Your task to perform on an android device: Open Amazon Image 0: 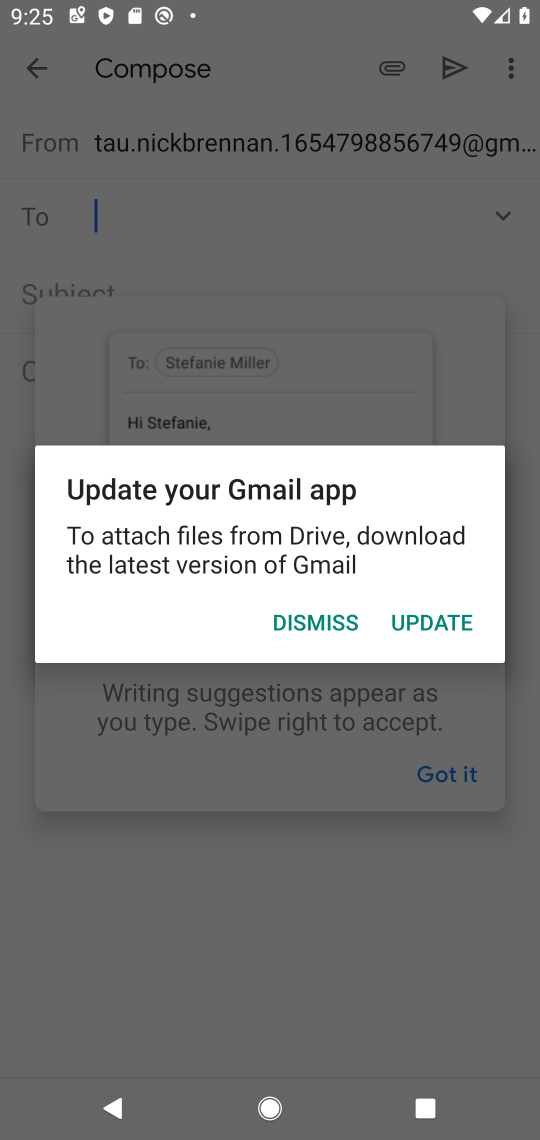
Step 0: press home button
Your task to perform on an android device: Open Amazon Image 1: 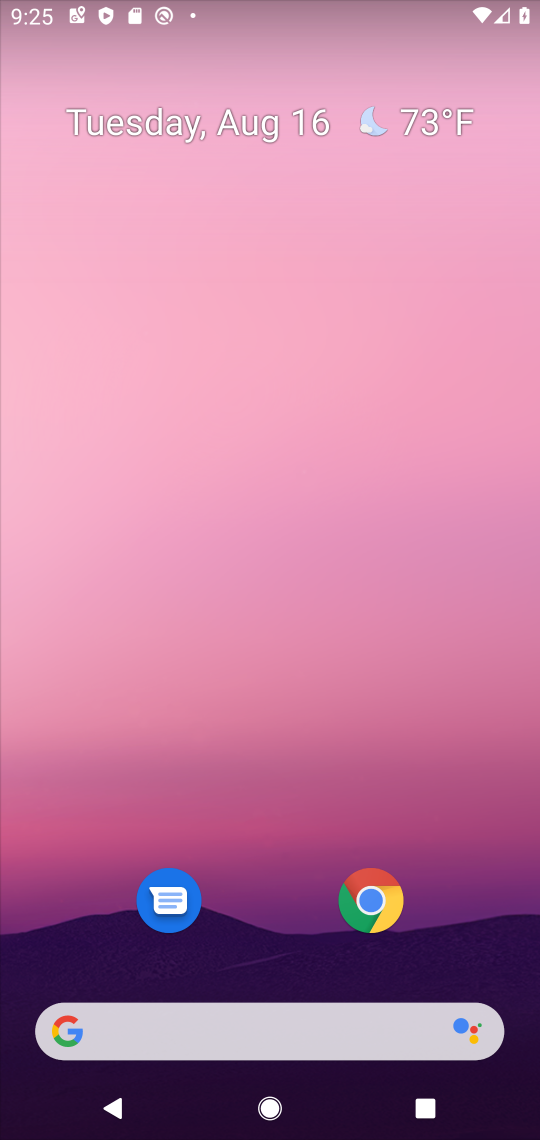
Step 1: drag from (365, 783) to (487, 36)
Your task to perform on an android device: Open Amazon Image 2: 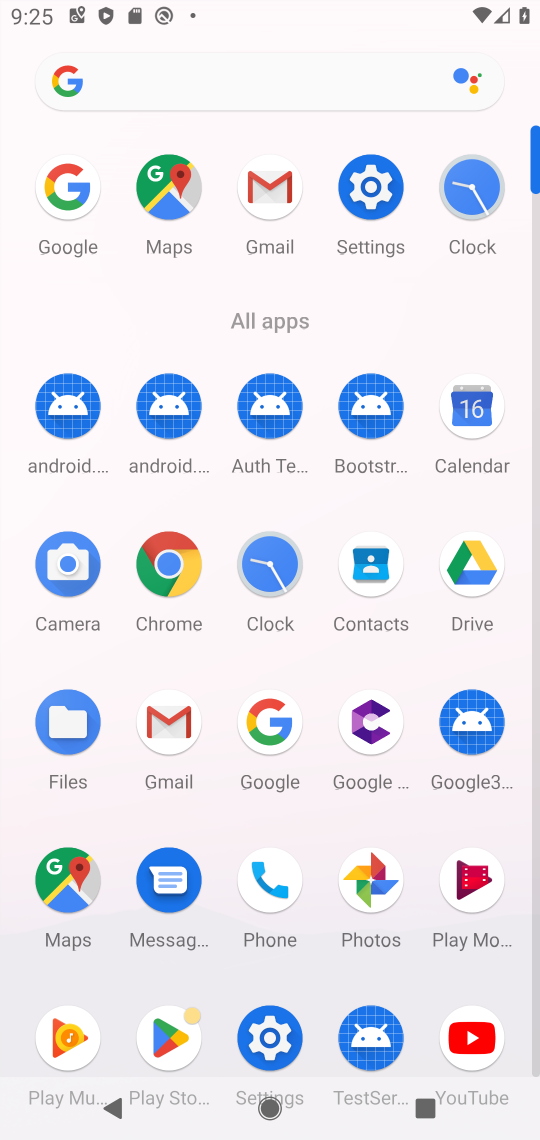
Step 2: click (276, 726)
Your task to perform on an android device: Open Amazon Image 3: 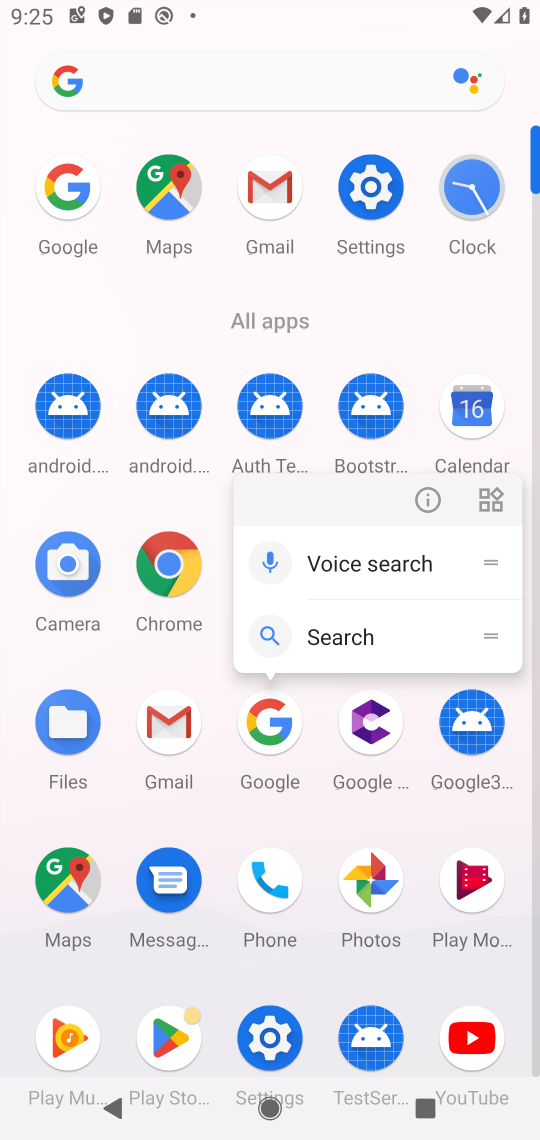
Step 3: click (276, 726)
Your task to perform on an android device: Open Amazon Image 4: 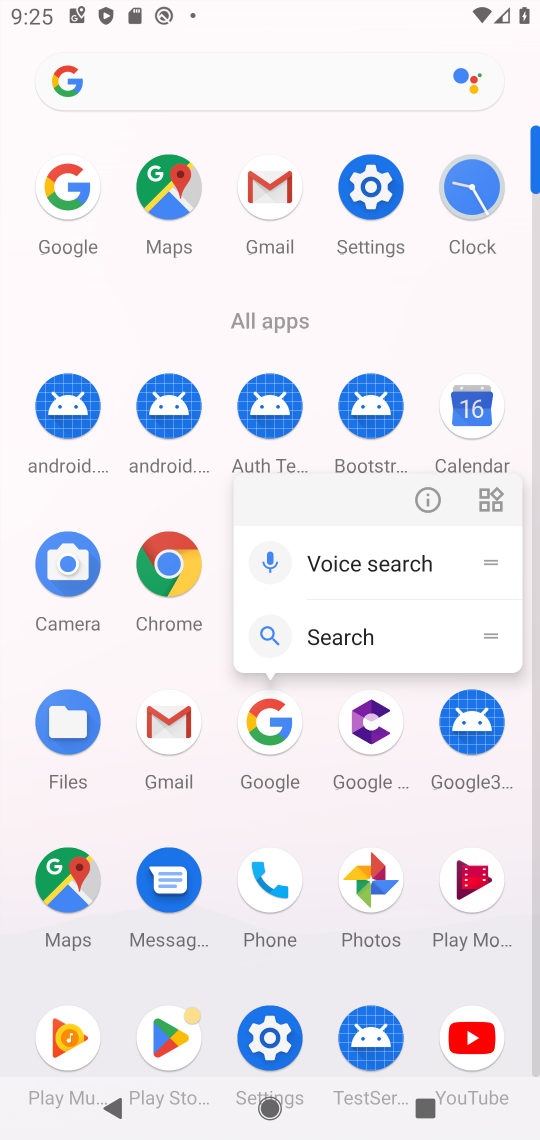
Step 4: click (276, 726)
Your task to perform on an android device: Open Amazon Image 5: 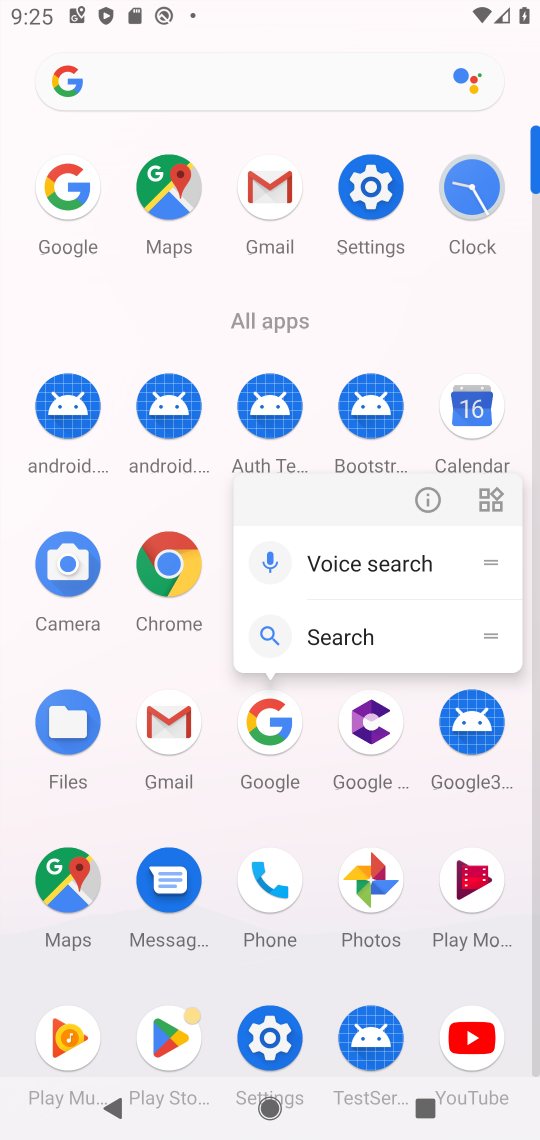
Step 5: click (258, 722)
Your task to perform on an android device: Open Amazon Image 6: 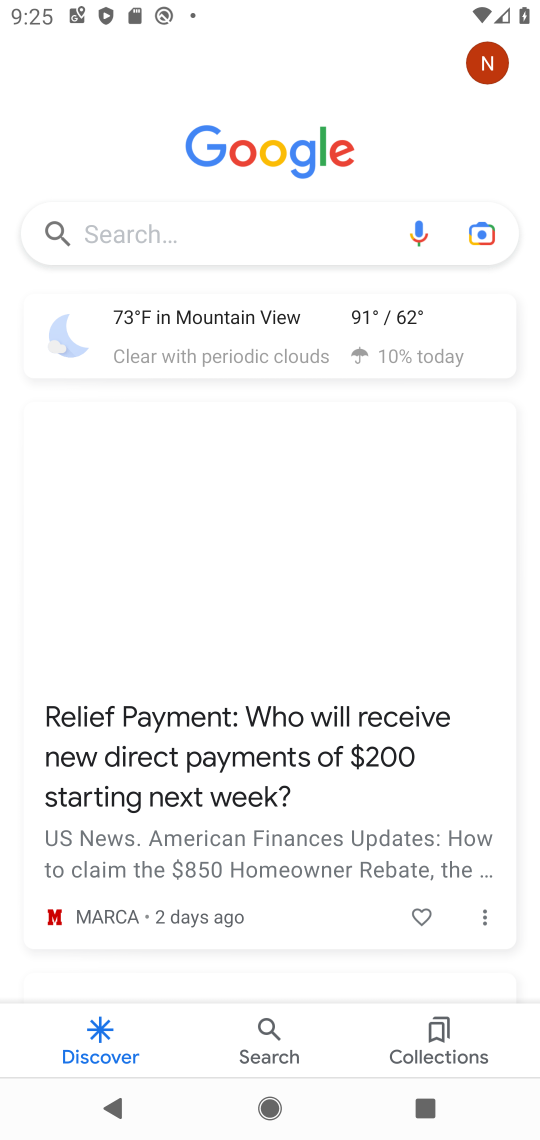
Step 6: click (283, 248)
Your task to perform on an android device: Open Amazon Image 7: 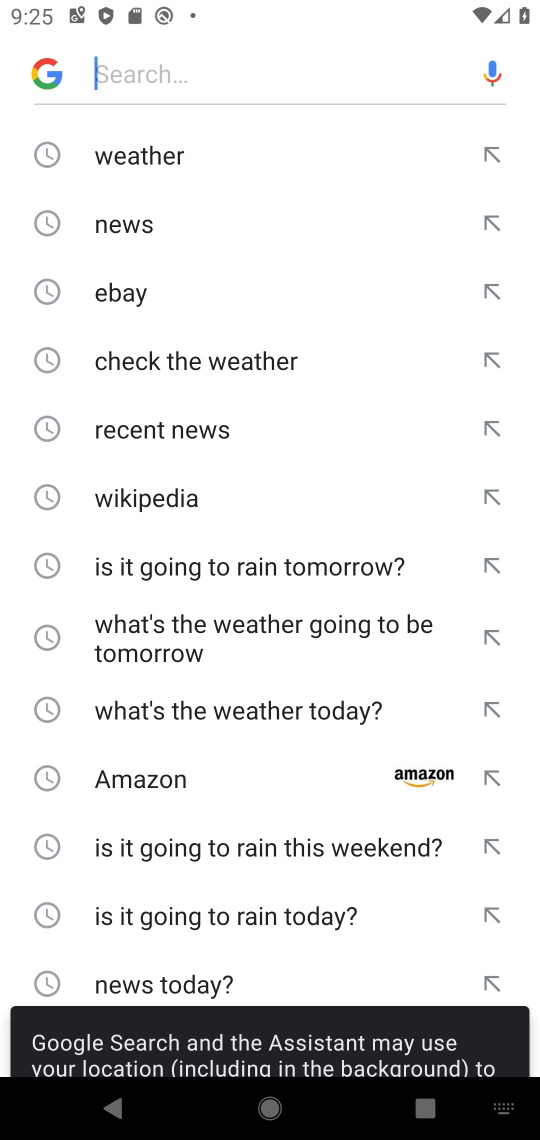
Step 7: click (168, 784)
Your task to perform on an android device: Open Amazon Image 8: 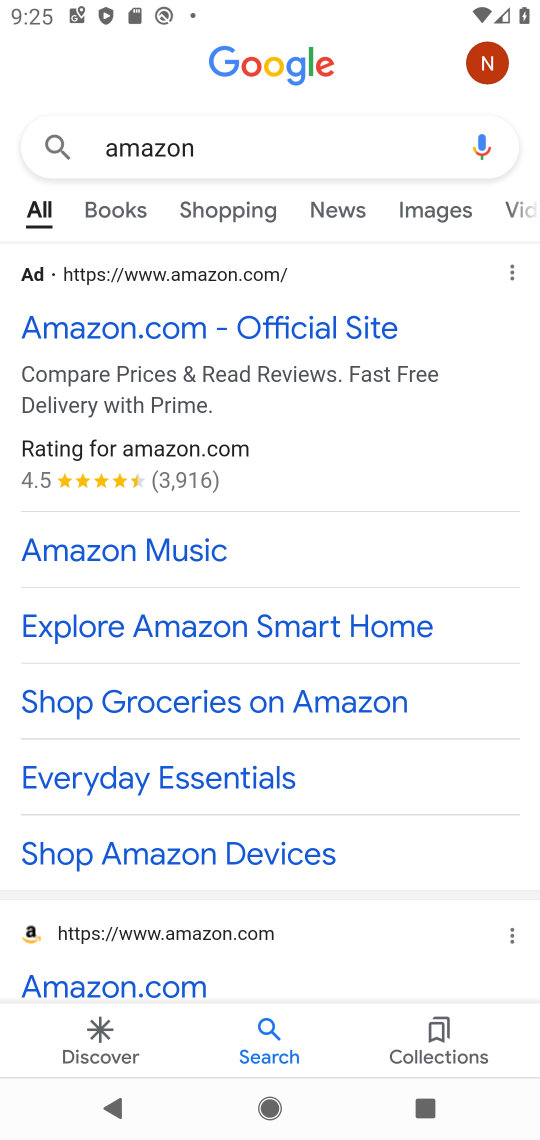
Step 8: click (204, 323)
Your task to perform on an android device: Open Amazon Image 9: 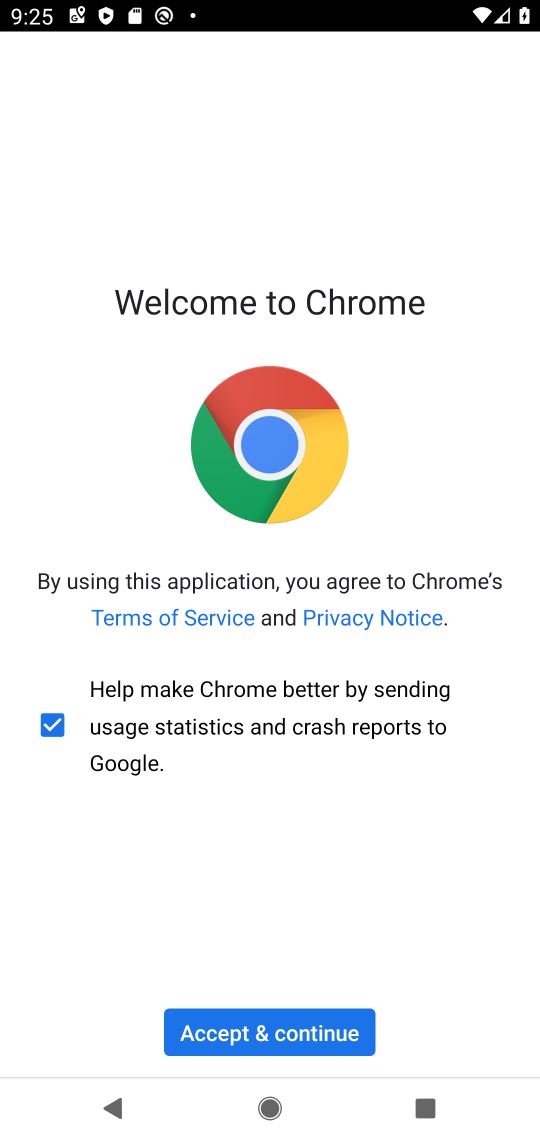
Step 9: click (226, 1010)
Your task to perform on an android device: Open Amazon Image 10: 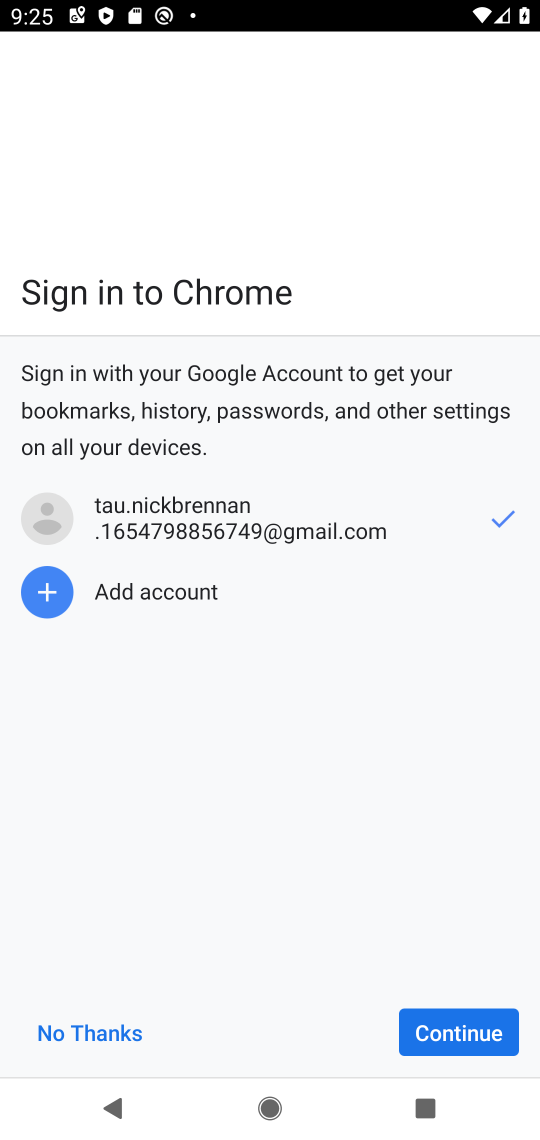
Step 10: click (439, 1027)
Your task to perform on an android device: Open Amazon Image 11: 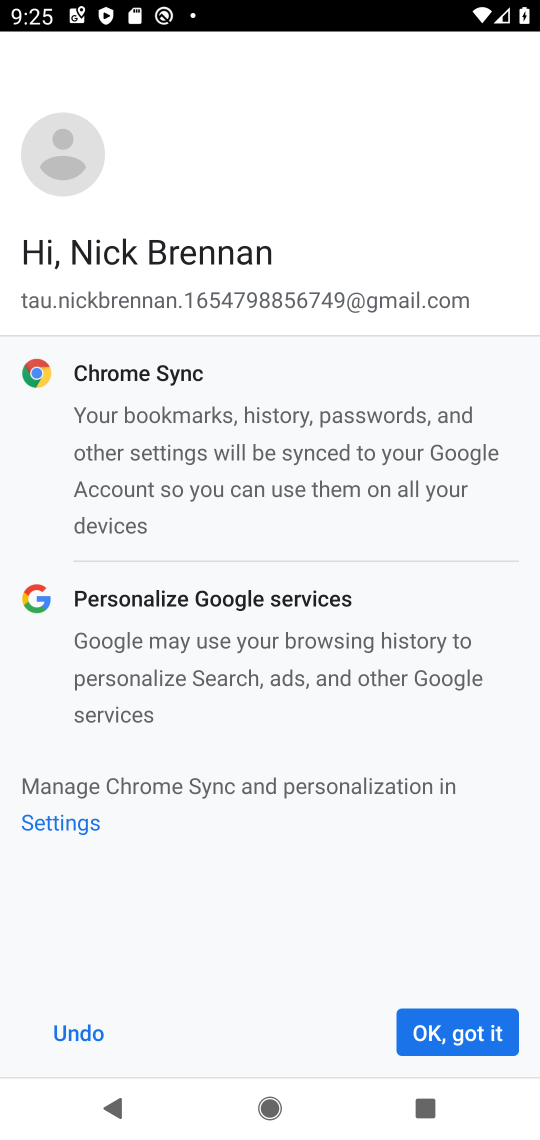
Step 11: click (439, 1027)
Your task to perform on an android device: Open Amazon Image 12: 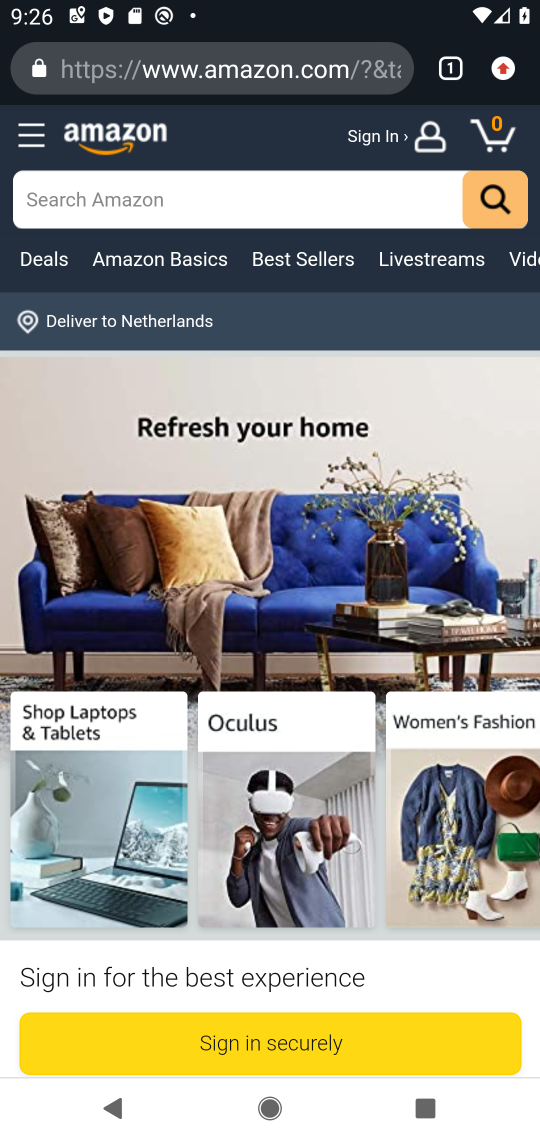
Step 12: task complete